Your task to perform on an android device: open app "Contacts" (install if not already installed) Image 0: 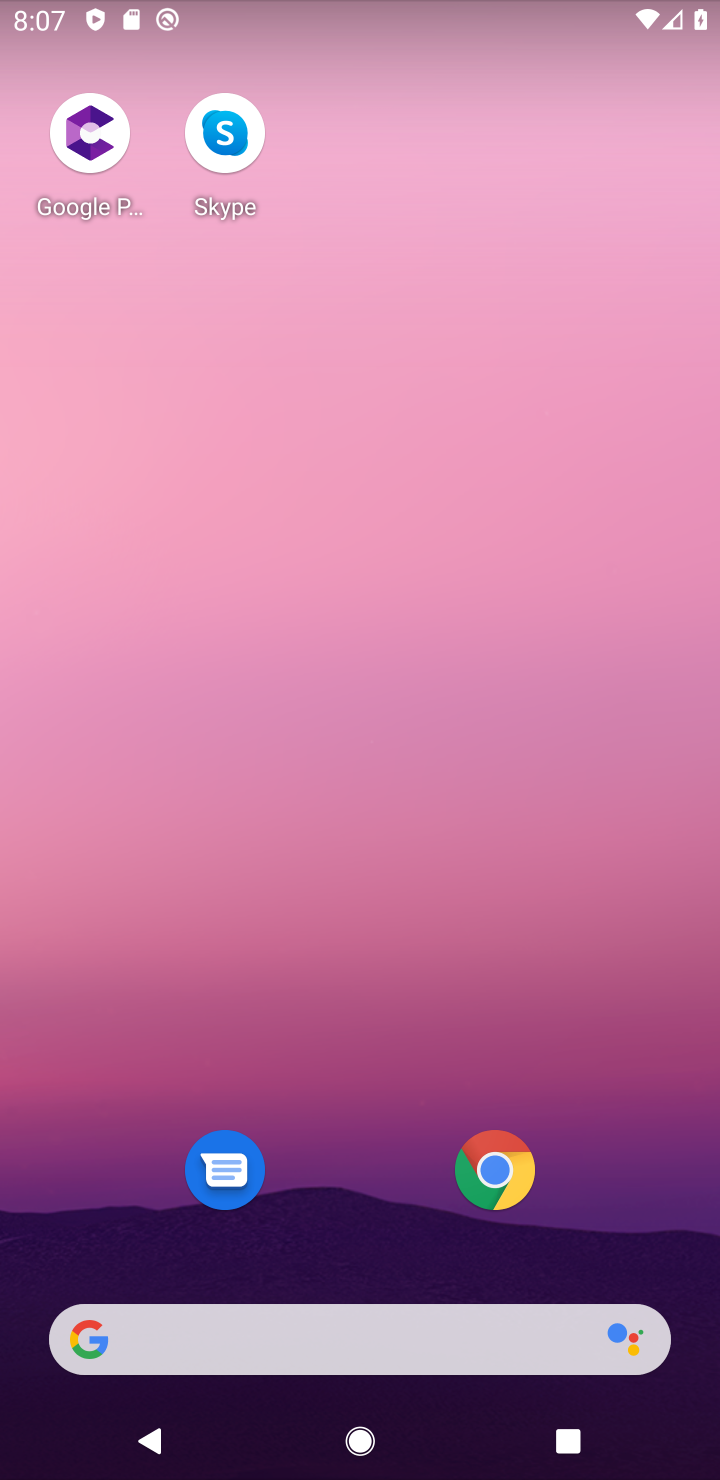
Step 0: drag from (386, 1204) to (401, 157)
Your task to perform on an android device: open app "Contacts" (install if not already installed) Image 1: 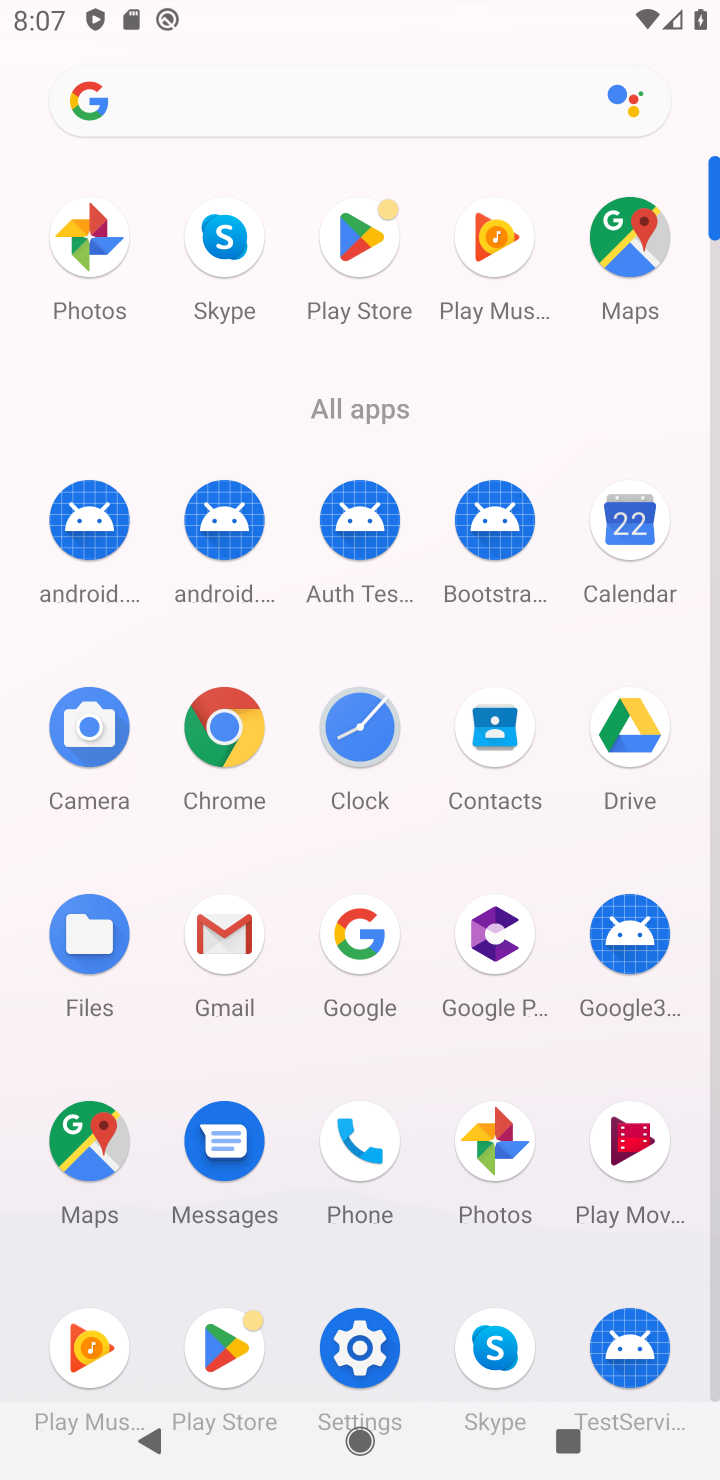
Step 1: click (508, 751)
Your task to perform on an android device: open app "Contacts" (install if not already installed) Image 2: 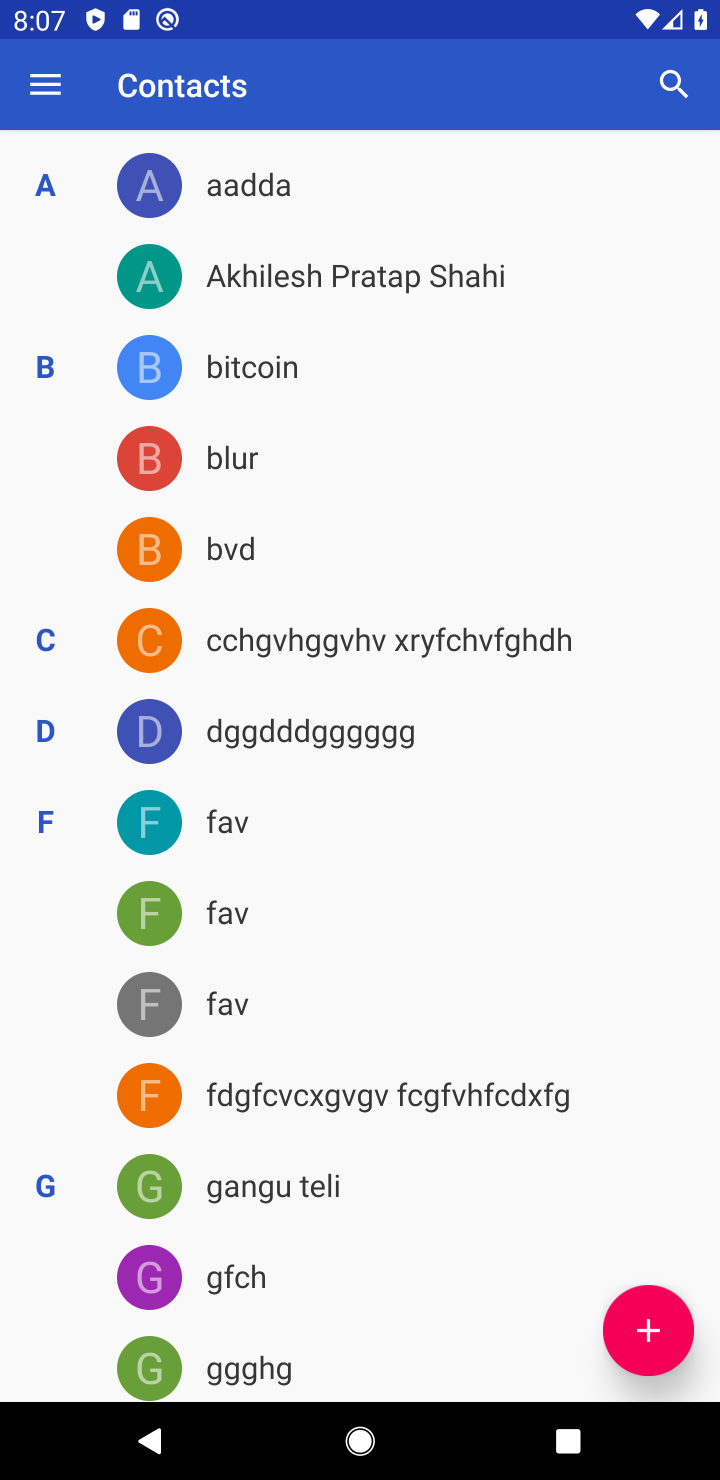
Step 2: task complete